Your task to perform on an android device: What is the recent news? Image 0: 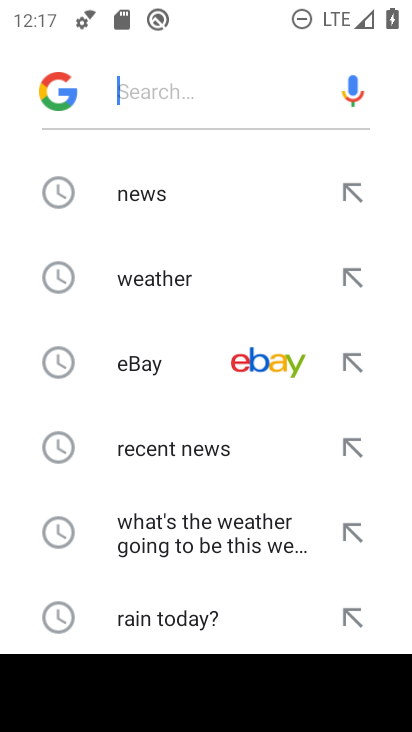
Step 0: press home button
Your task to perform on an android device: What is the recent news? Image 1: 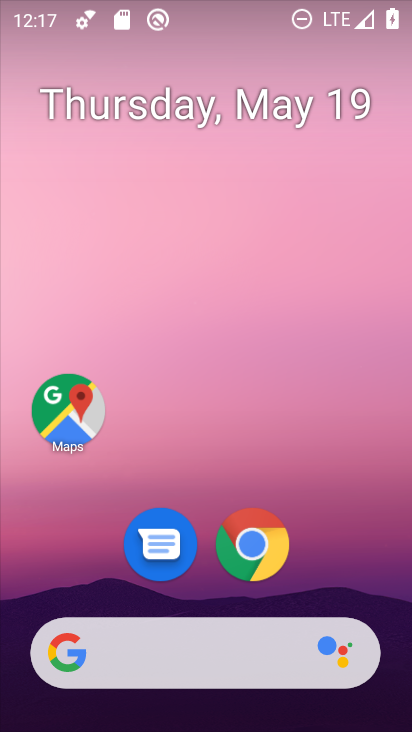
Step 1: click (227, 671)
Your task to perform on an android device: What is the recent news? Image 2: 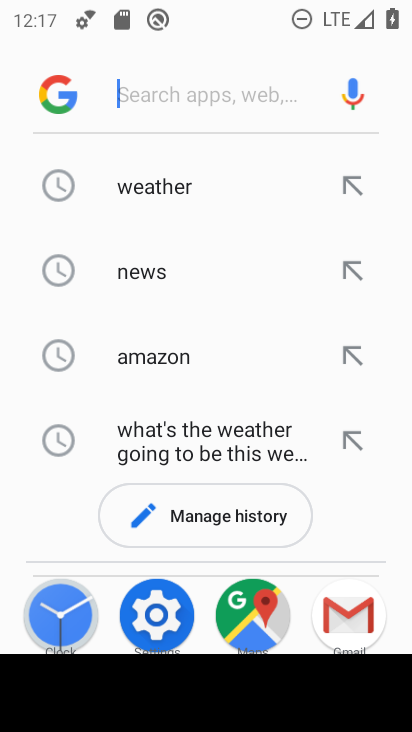
Step 2: click (179, 257)
Your task to perform on an android device: What is the recent news? Image 3: 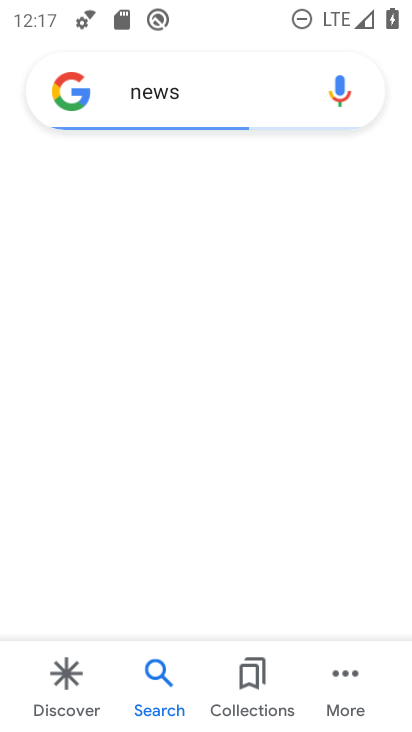
Step 3: task complete